Your task to perform on an android device: toggle translation in the chrome app Image 0: 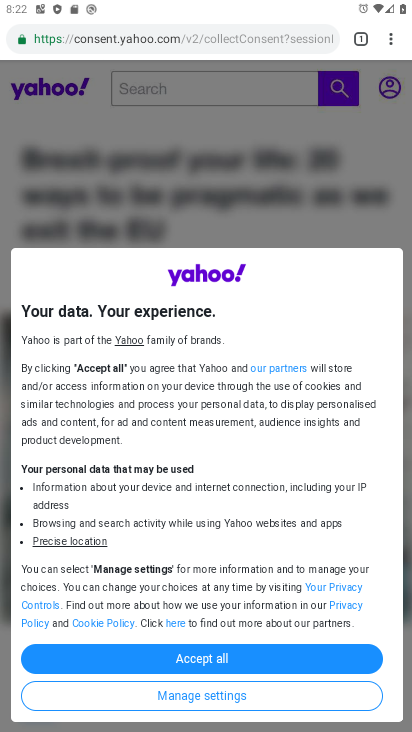
Step 0: press home button
Your task to perform on an android device: toggle translation in the chrome app Image 1: 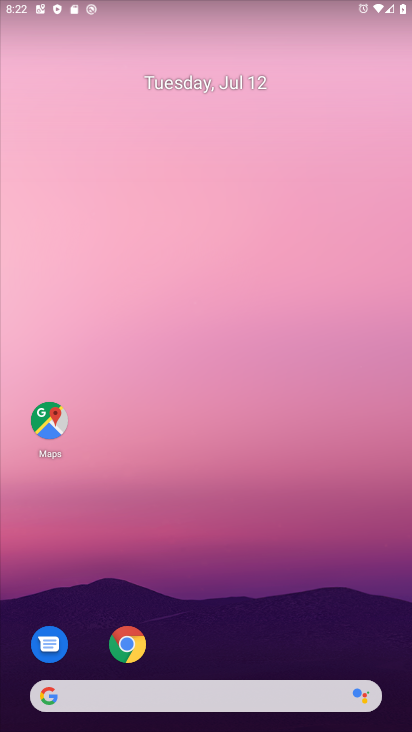
Step 1: click (131, 643)
Your task to perform on an android device: toggle translation in the chrome app Image 2: 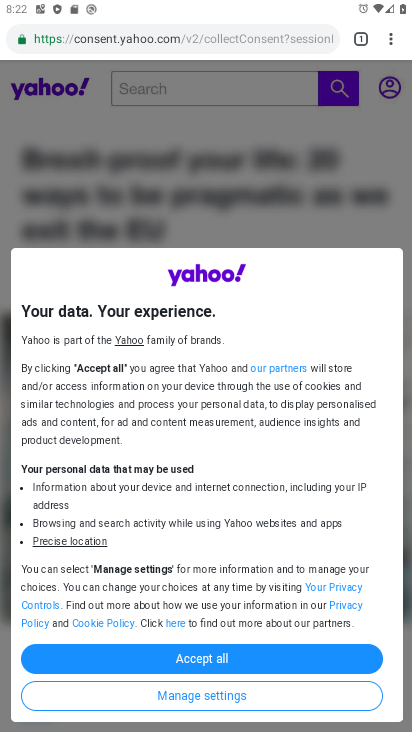
Step 2: click (389, 39)
Your task to perform on an android device: toggle translation in the chrome app Image 3: 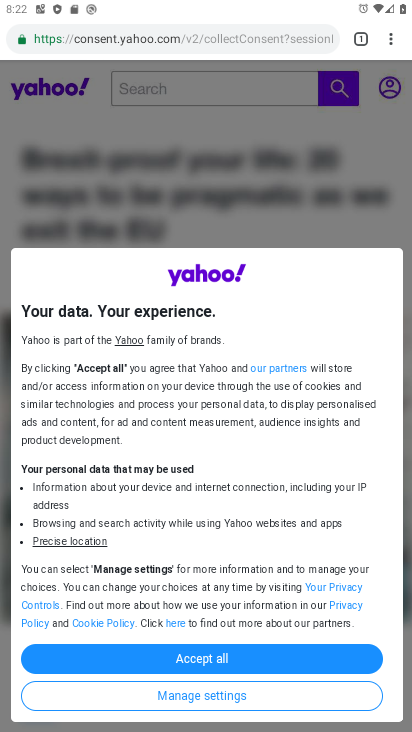
Step 3: click (389, 38)
Your task to perform on an android device: toggle translation in the chrome app Image 4: 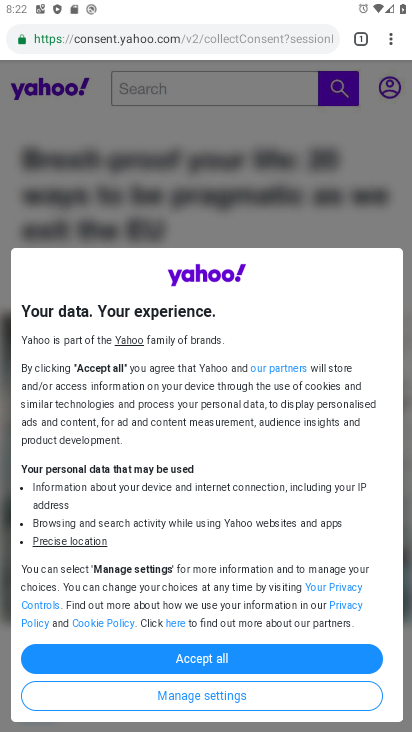
Step 4: click (389, 38)
Your task to perform on an android device: toggle translation in the chrome app Image 5: 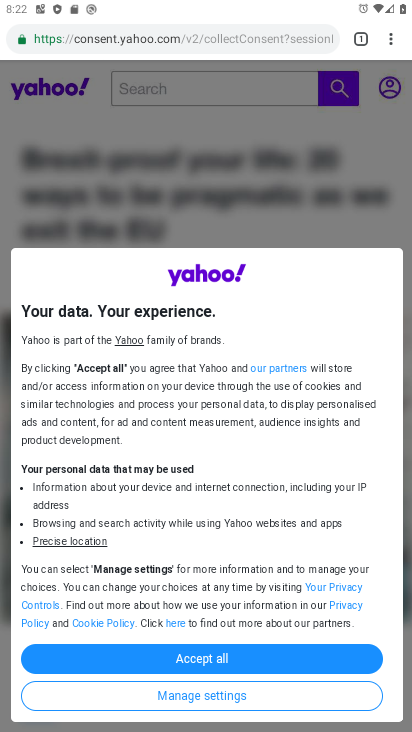
Step 5: click (396, 35)
Your task to perform on an android device: toggle translation in the chrome app Image 6: 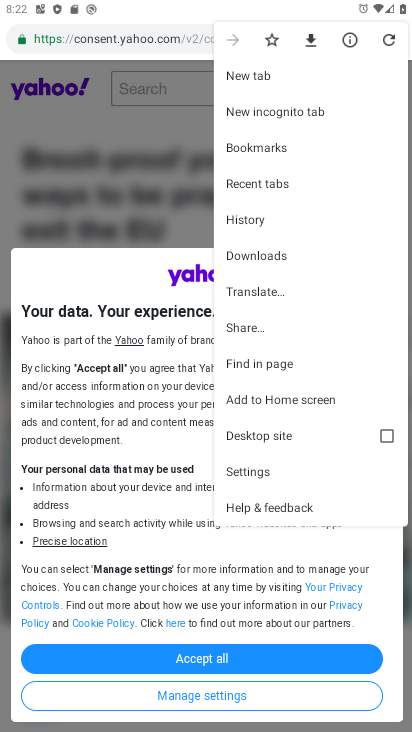
Step 6: click (244, 466)
Your task to perform on an android device: toggle translation in the chrome app Image 7: 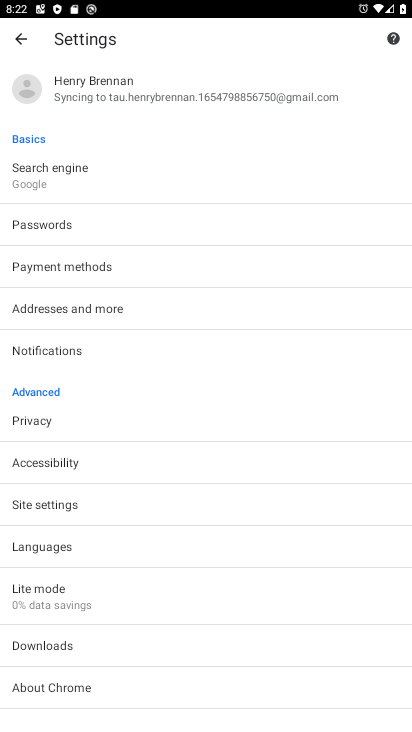
Step 7: click (23, 555)
Your task to perform on an android device: toggle translation in the chrome app Image 8: 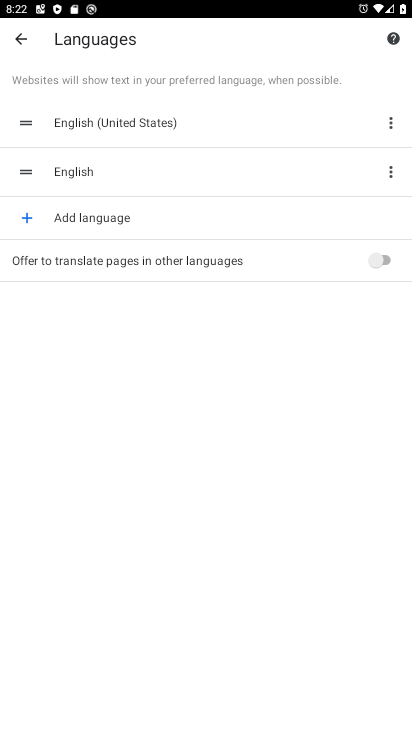
Step 8: click (382, 262)
Your task to perform on an android device: toggle translation in the chrome app Image 9: 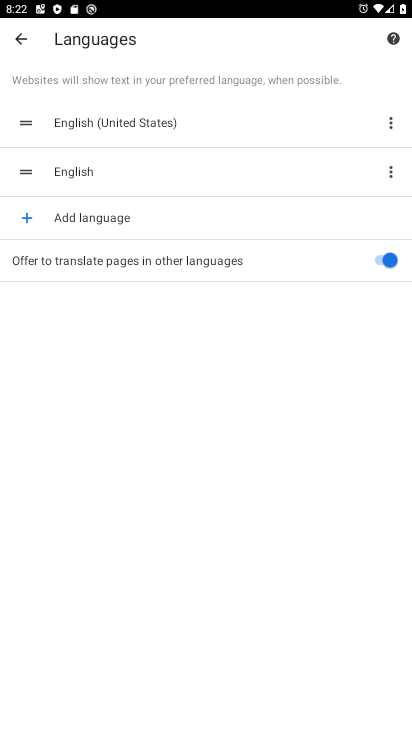
Step 9: task complete